Your task to perform on an android device: See recent photos Image 0: 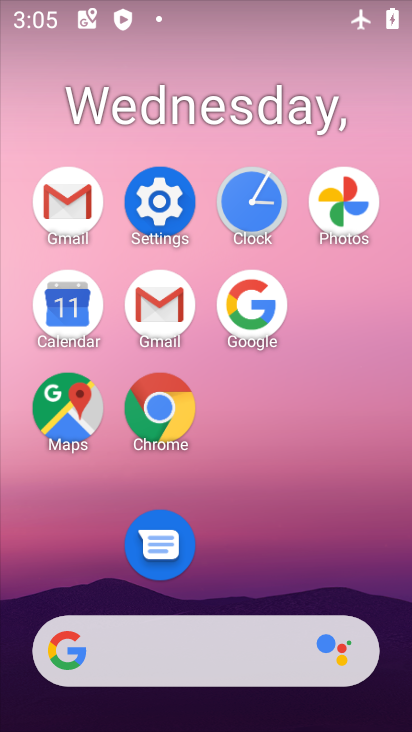
Step 0: click (334, 175)
Your task to perform on an android device: See recent photos Image 1: 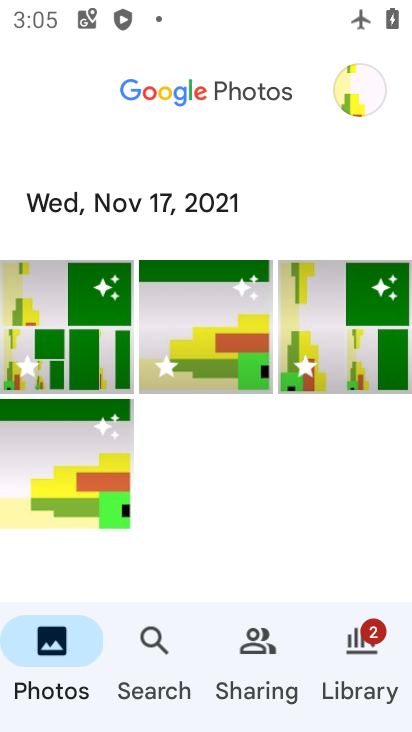
Step 1: click (70, 358)
Your task to perform on an android device: See recent photos Image 2: 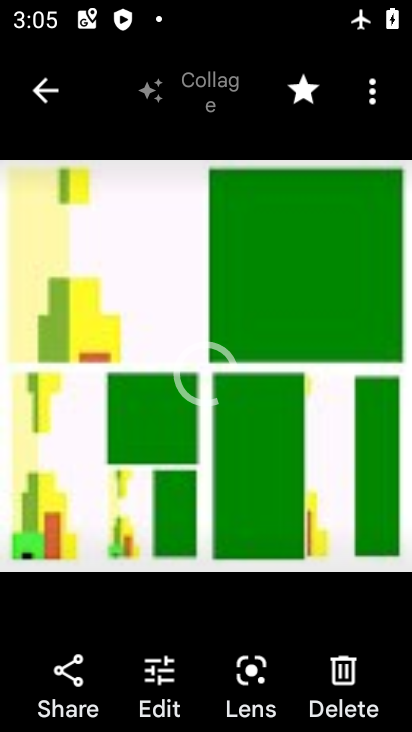
Step 2: task complete